Your task to perform on an android device: toggle location history Image 0: 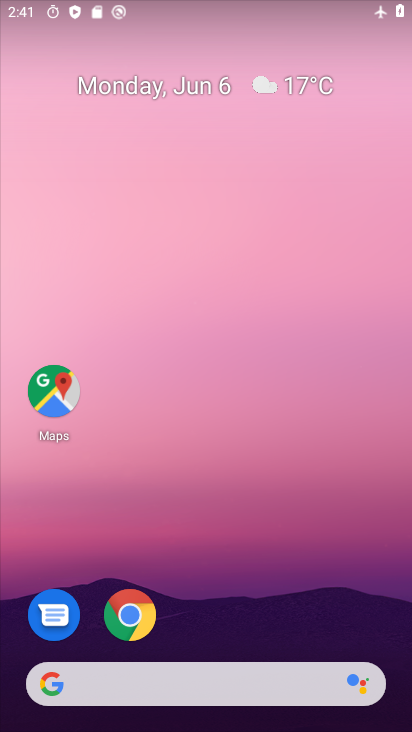
Step 0: drag from (236, 651) to (336, 132)
Your task to perform on an android device: toggle location history Image 1: 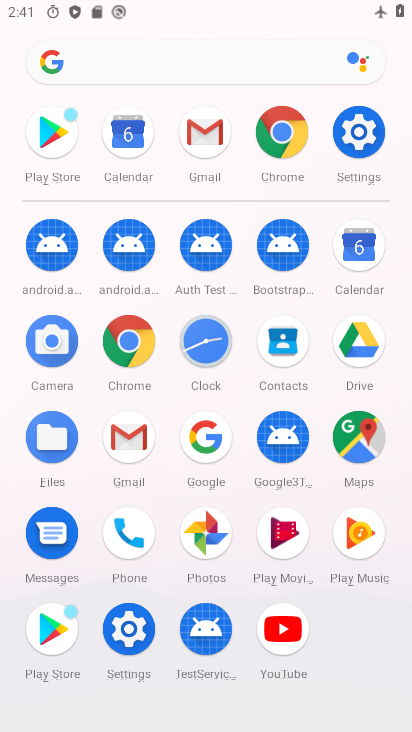
Step 1: click (150, 655)
Your task to perform on an android device: toggle location history Image 2: 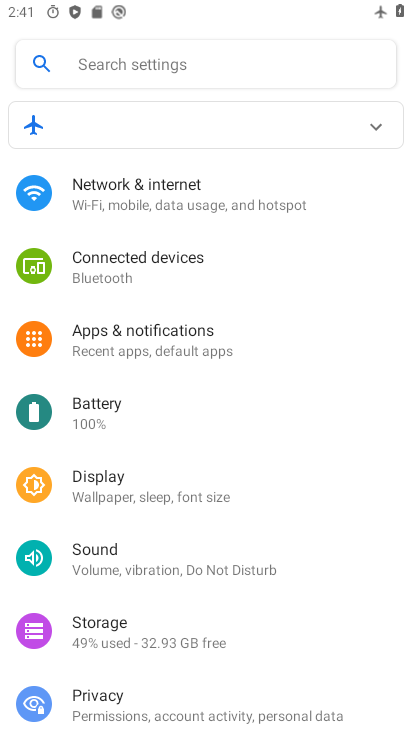
Step 2: drag from (196, 558) to (202, 187)
Your task to perform on an android device: toggle location history Image 3: 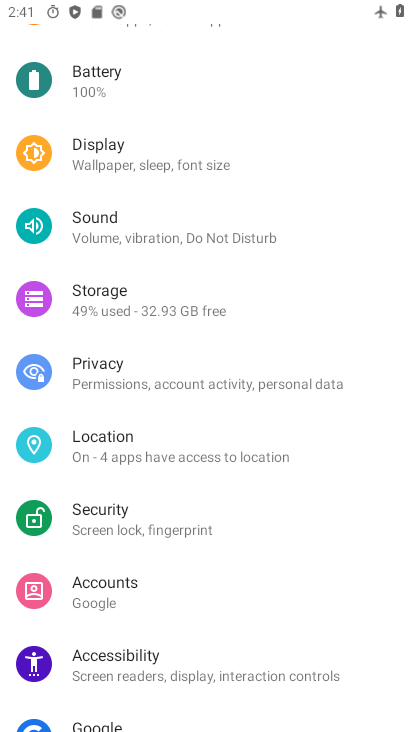
Step 3: click (145, 449)
Your task to perform on an android device: toggle location history Image 4: 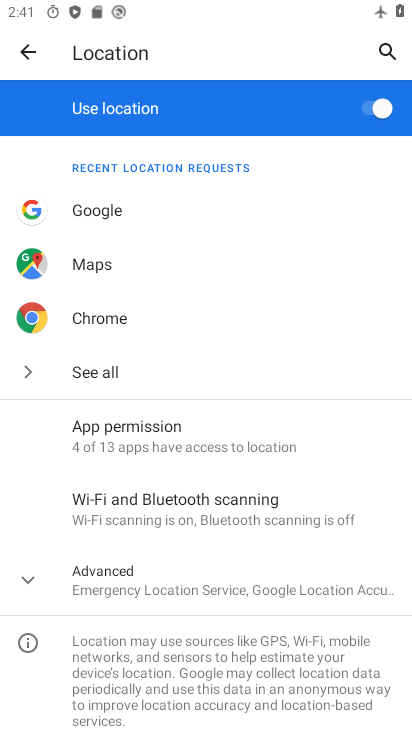
Step 4: click (127, 585)
Your task to perform on an android device: toggle location history Image 5: 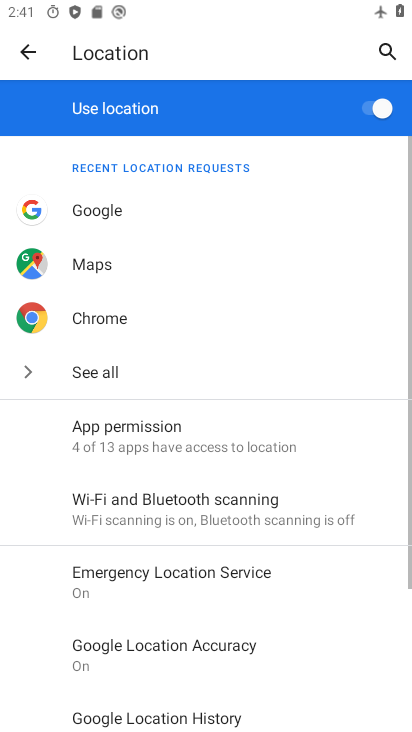
Step 5: drag from (198, 646) to (230, 484)
Your task to perform on an android device: toggle location history Image 6: 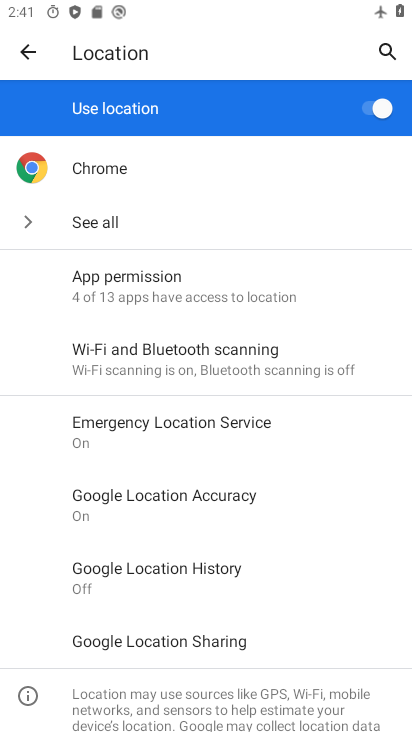
Step 6: click (198, 583)
Your task to perform on an android device: toggle location history Image 7: 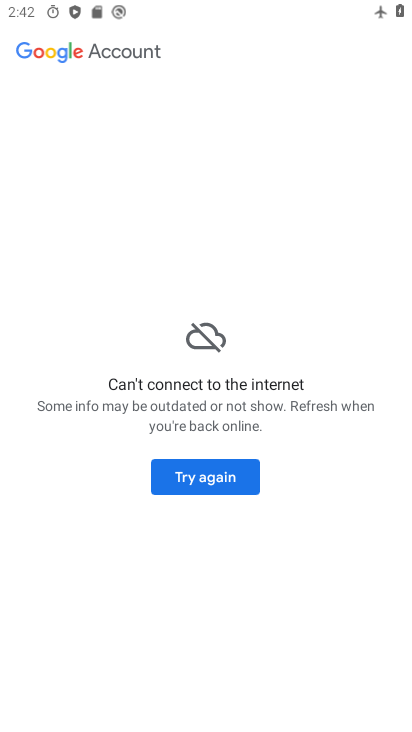
Step 7: click (216, 476)
Your task to perform on an android device: toggle location history Image 8: 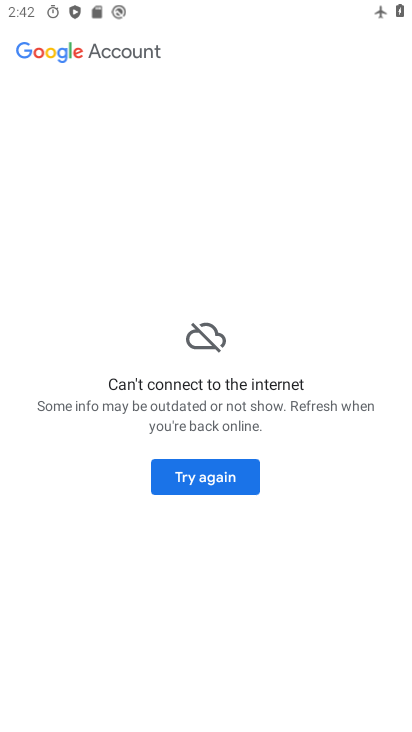
Step 8: task complete